Your task to perform on an android device: Search for pizza restaurants on Maps Image 0: 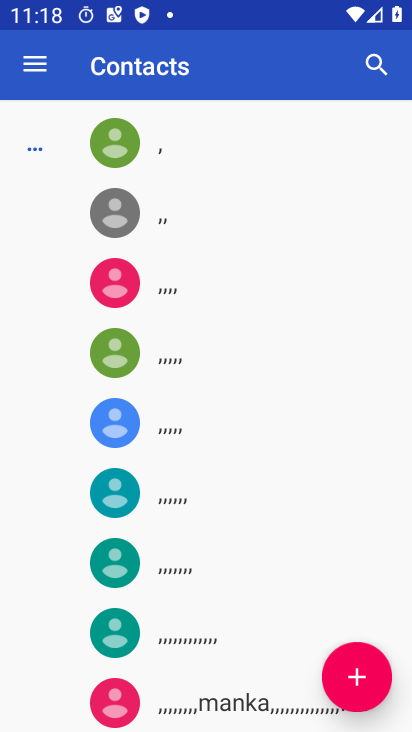
Step 0: press home button
Your task to perform on an android device: Search for pizza restaurants on Maps Image 1: 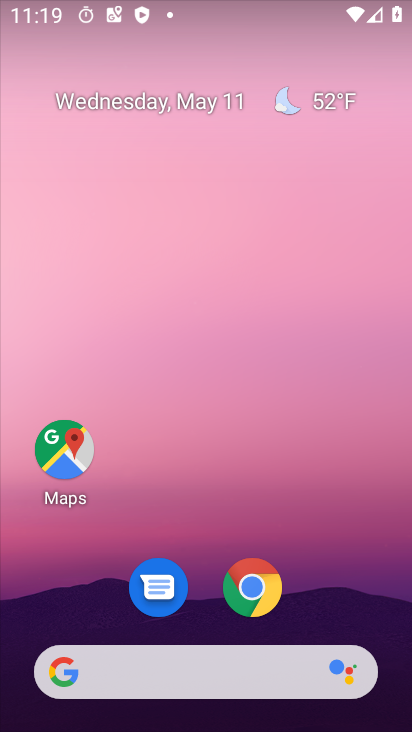
Step 1: drag from (238, 685) to (384, 179)
Your task to perform on an android device: Search for pizza restaurants on Maps Image 2: 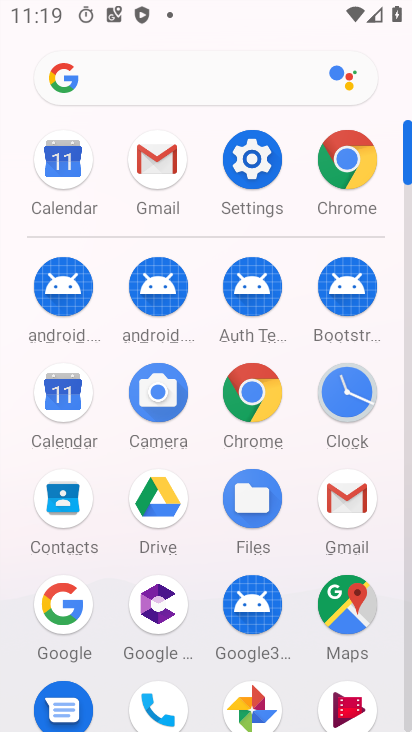
Step 2: click (327, 602)
Your task to perform on an android device: Search for pizza restaurants on Maps Image 3: 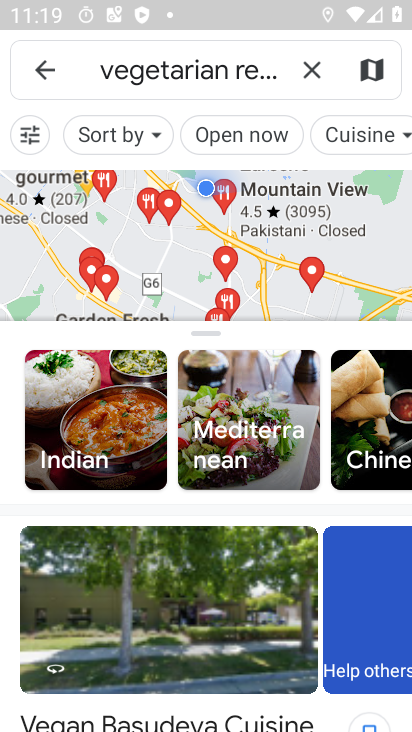
Step 3: click (306, 62)
Your task to perform on an android device: Search for pizza restaurants on Maps Image 4: 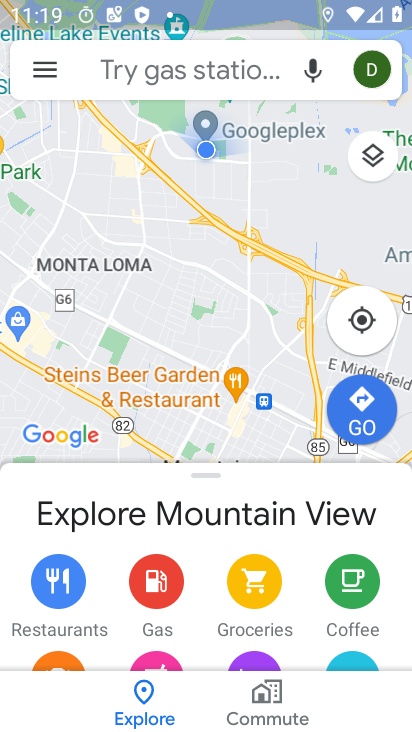
Step 4: click (211, 66)
Your task to perform on an android device: Search for pizza restaurants on Maps Image 5: 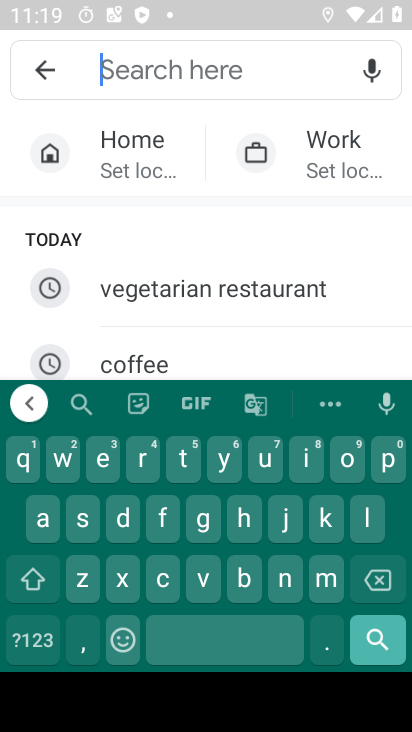
Step 5: click (380, 469)
Your task to perform on an android device: Search for pizza restaurants on Maps Image 6: 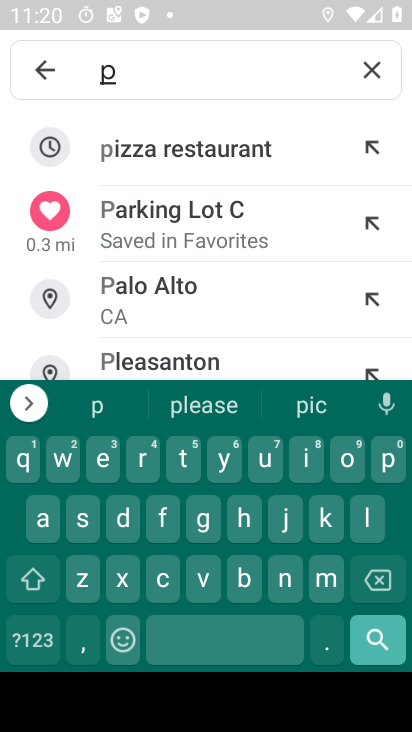
Step 6: click (227, 157)
Your task to perform on an android device: Search for pizza restaurants on Maps Image 7: 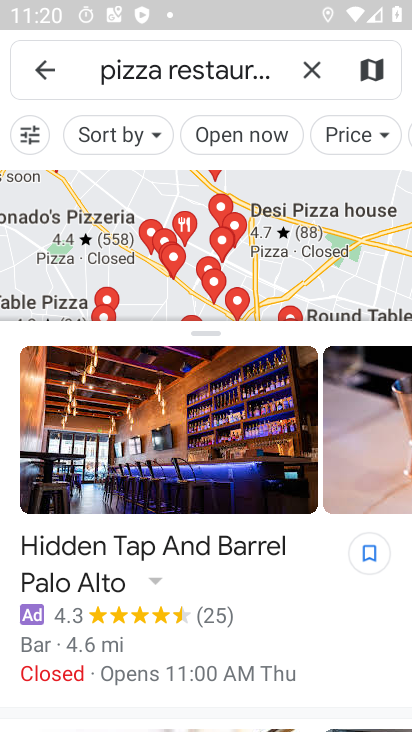
Step 7: task complete